Your task to perform on an android device: Open Yahoo.com Image 0: 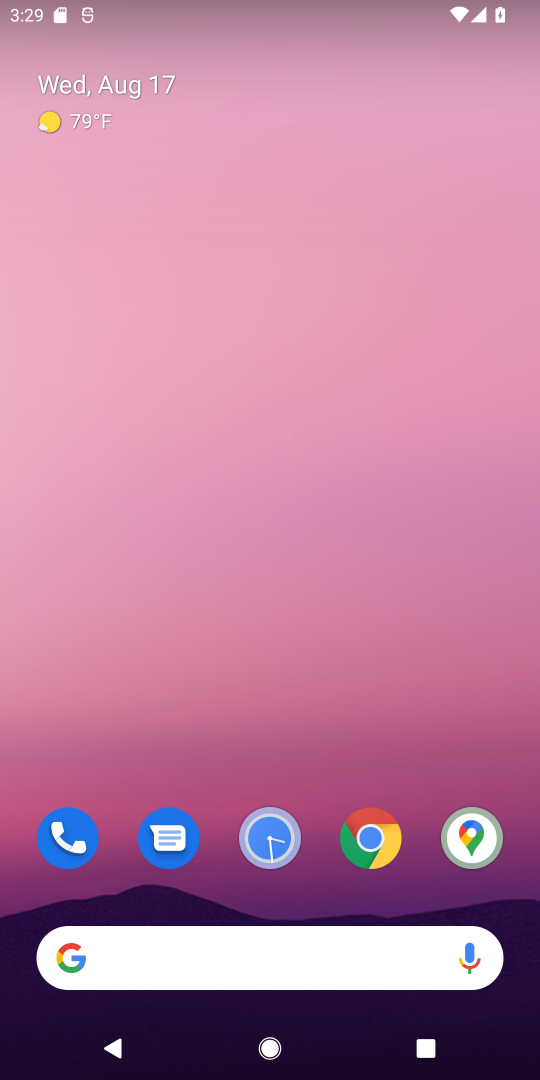
Step 0: click (354, 846)
Your task to perform on an android device: Open Yahoo.com Image 1: 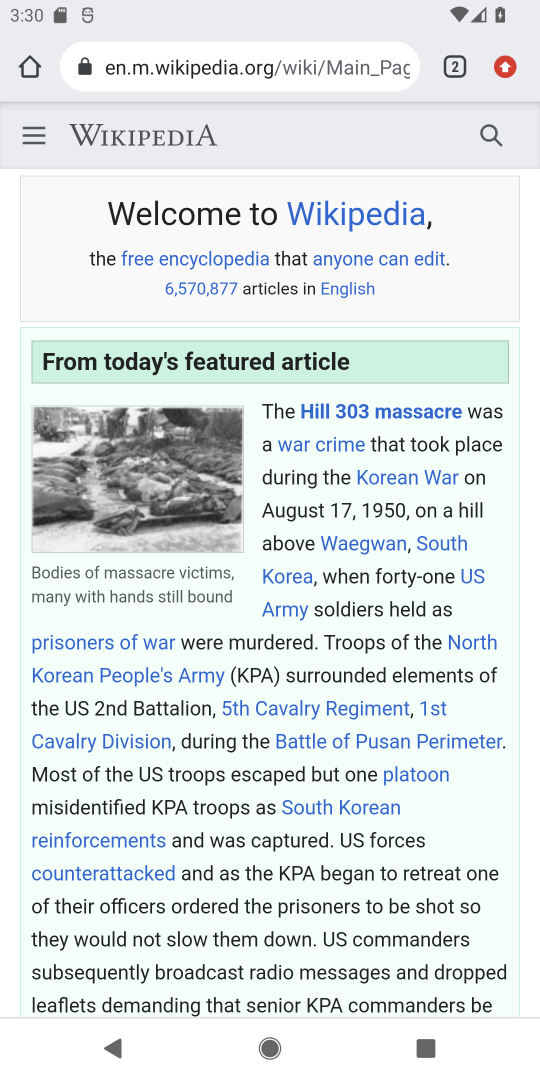
Step 1: click (439, 67)
Your task to perform on an android device: Open Yahoo.com Image 2: 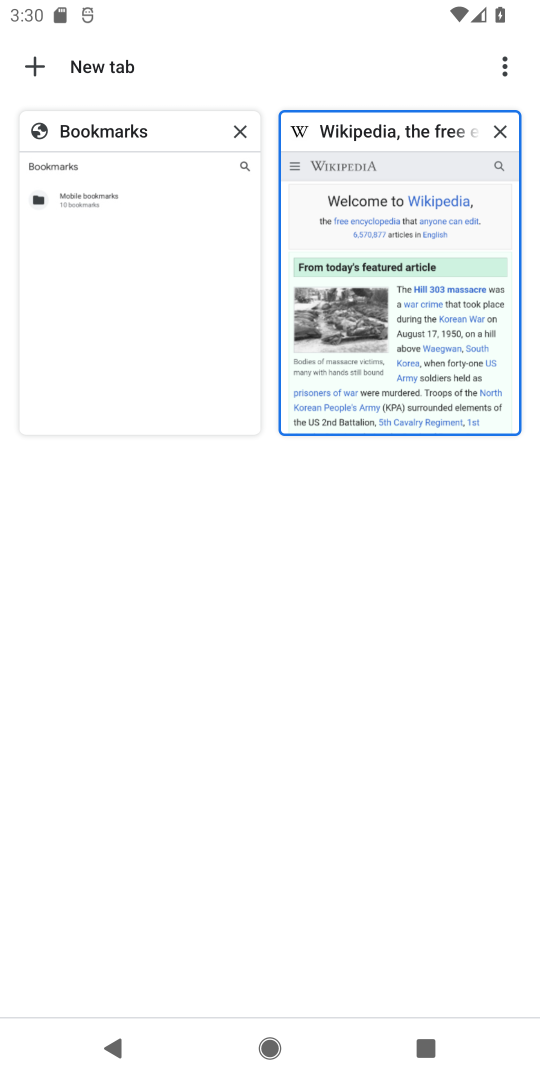
Step 2: click (40, 74)
Your task to perform on an android device: Open Yahoo.com Image 3: 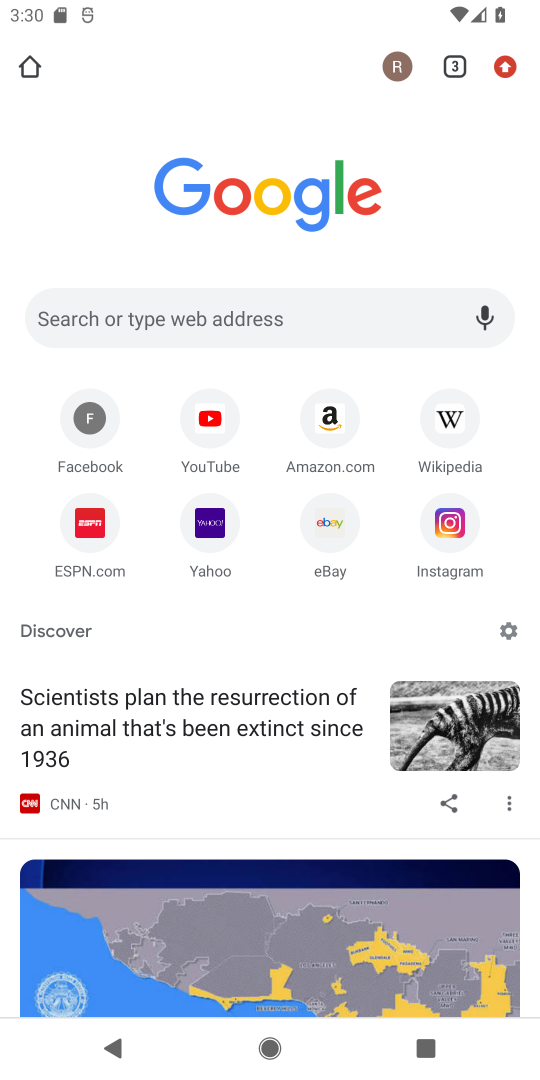
Step 3: click (221, 516)
Your task to perform on an android device: Open Yahoo.com Image 4: 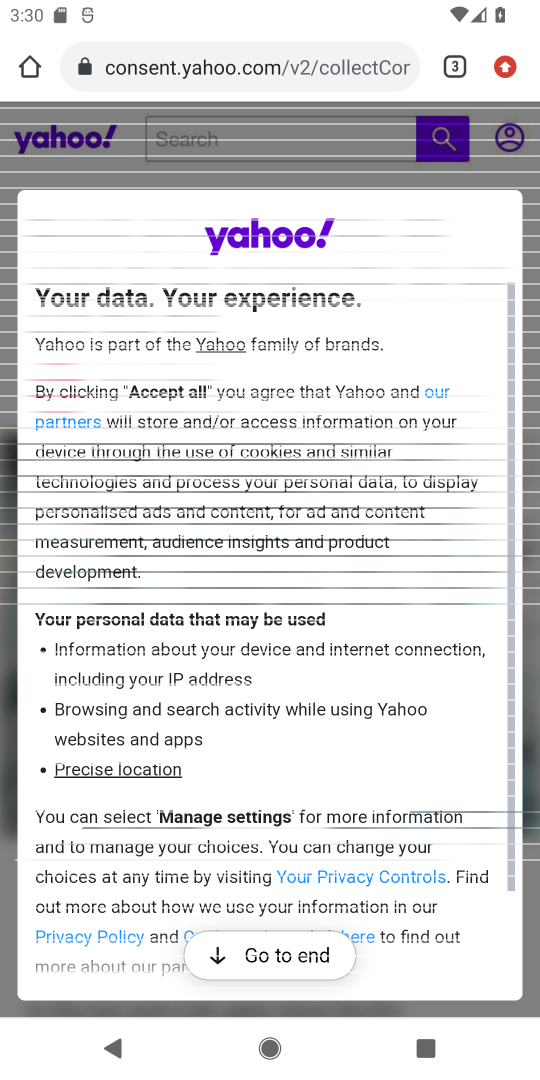
Step 4: task complete